Your task to perform on an android device: turn off notifications in google photos Image 0: 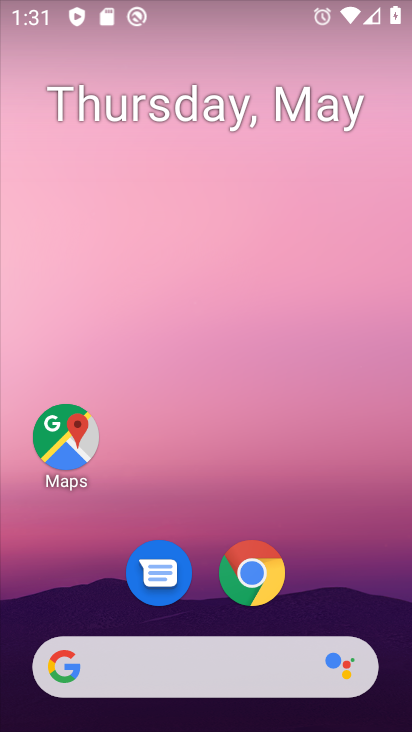
Step 0: drag from (388, 624) to (360, 320)
Your task to perform on an android device: turn off notifications in google photos Image 1: 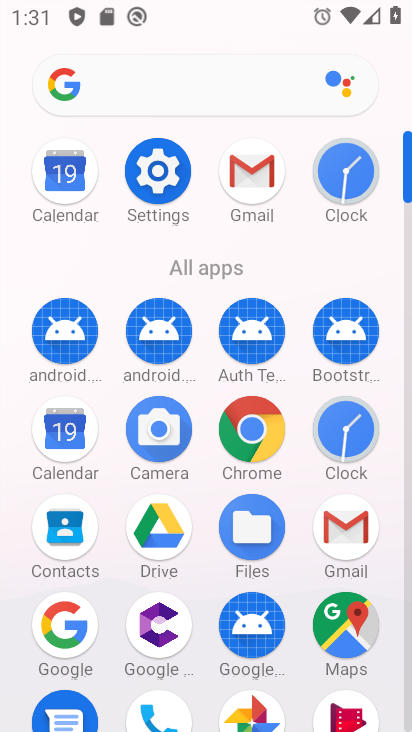
Step 1: click (243, 707)
Your task to perform on an android device: turn off notifications in google photos Image 2: 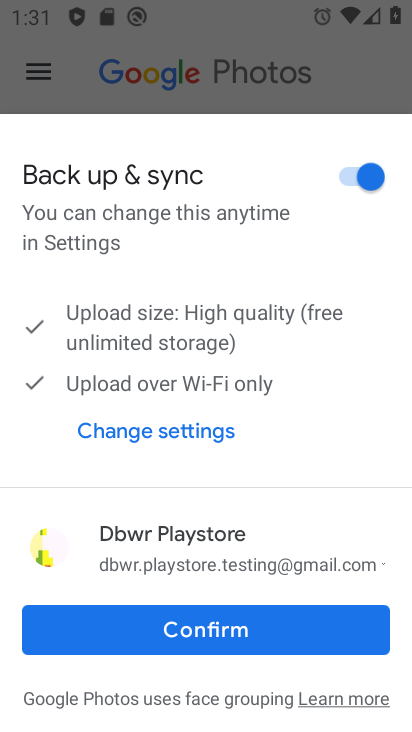
Step 2: click (268, 637)
Your task to perform on an android device: turn off notifications in google photos Image 3: 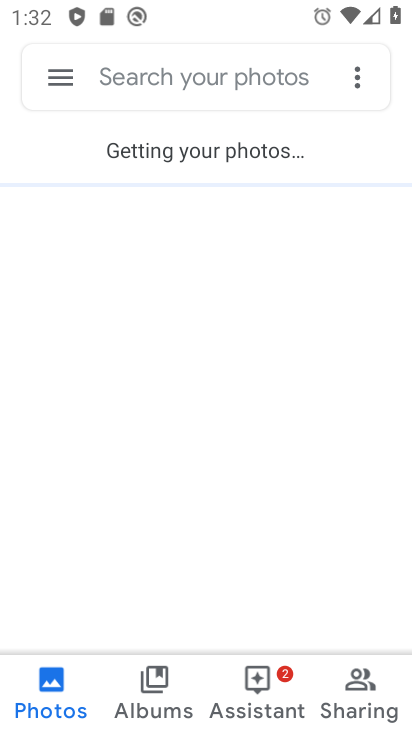
Step 3: click (65, 85)
Your task to perform on an android device: turn off notifications in google photos Image 4: 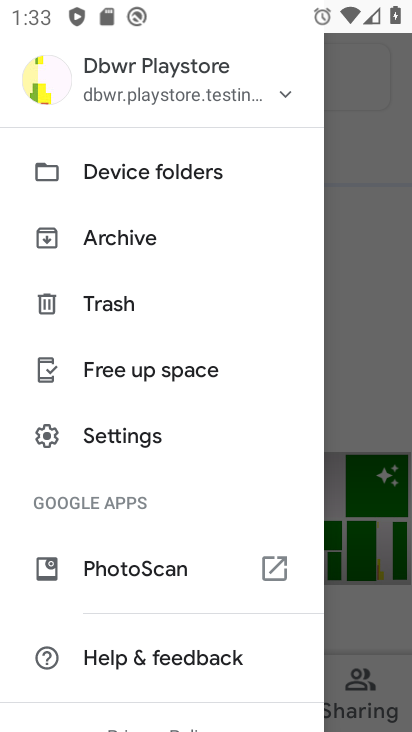
Step 4: click (121, 438)
Your task to perform on an android device: turn off notifications in google photos Image 5: 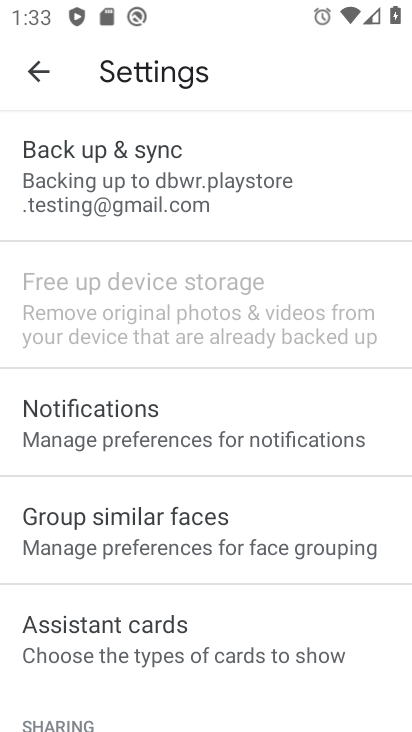
Step 5: click (104, 416)
Your task to perform on an android device: turn off notifications in google photos Image 6: 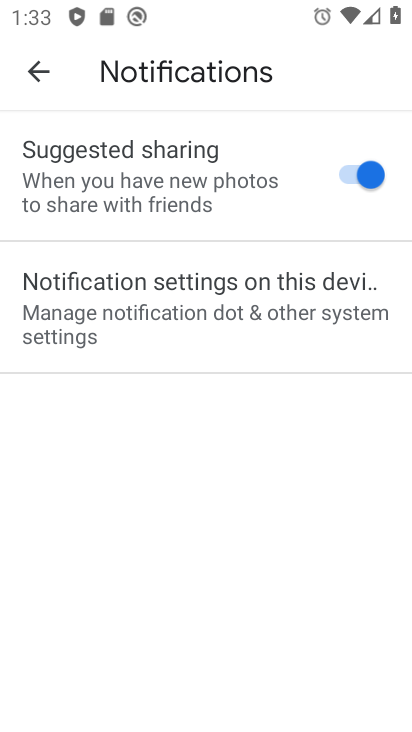
Step 6: click (346, 180)
Your task to perform on an android device: turn off notifications in google photos Image 7: 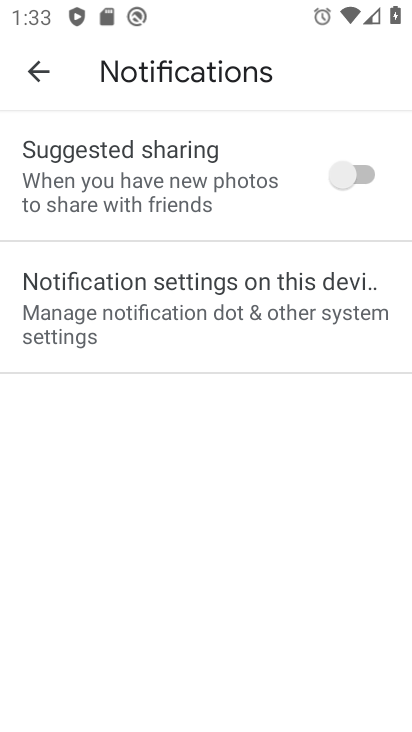
Step 7: task complete